Your task to perform on an android device: open app "Microsoft Excel" Image 0: 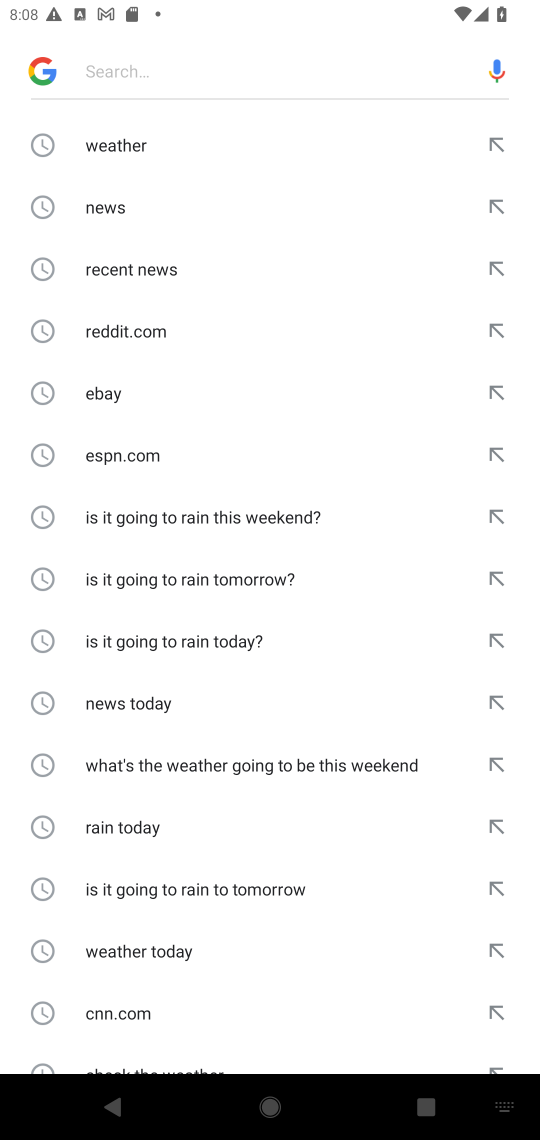
Step 0: press back button
Your task to perform on an android device: open app "Microsoft Excel" Image 1: 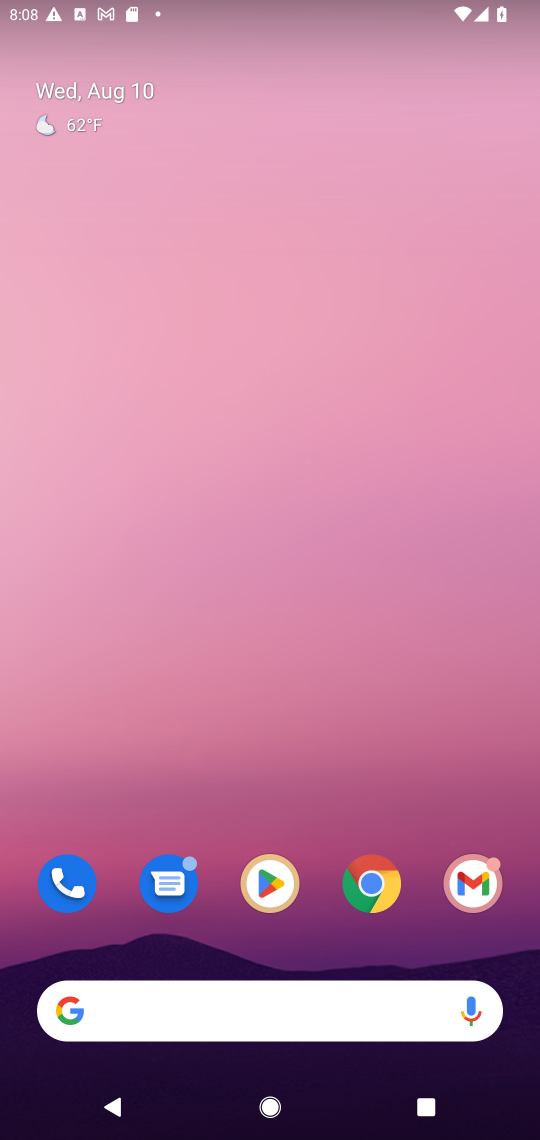
Step 1: click (261, 873)
Your task to perform on an android device: open app "Microsoft Excel" Image 2: 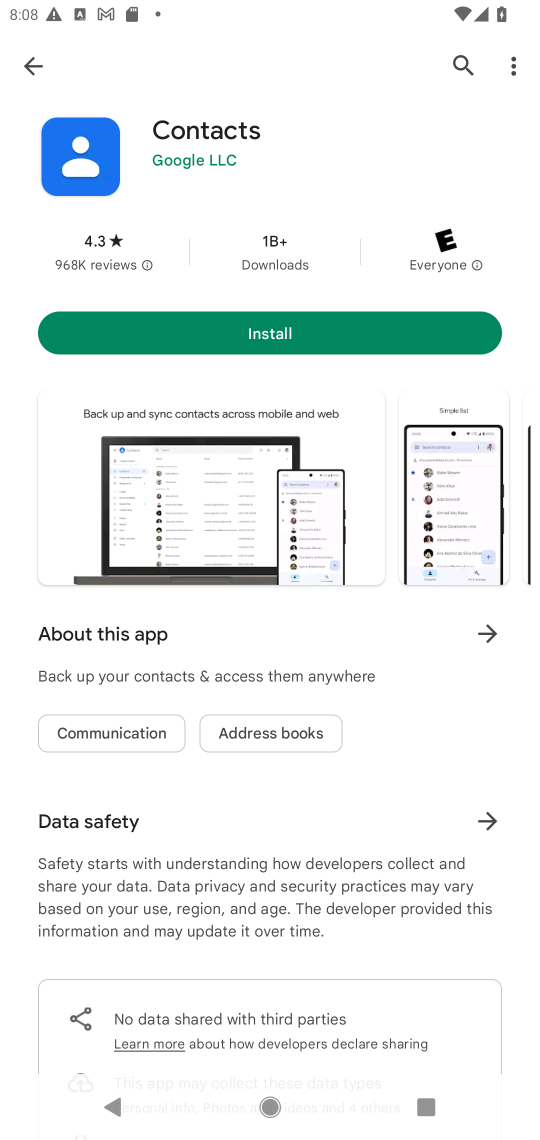
Step 2: click (456, 57)
Your task to perform on an android device: open app "Microsoft Excel" Image 3: 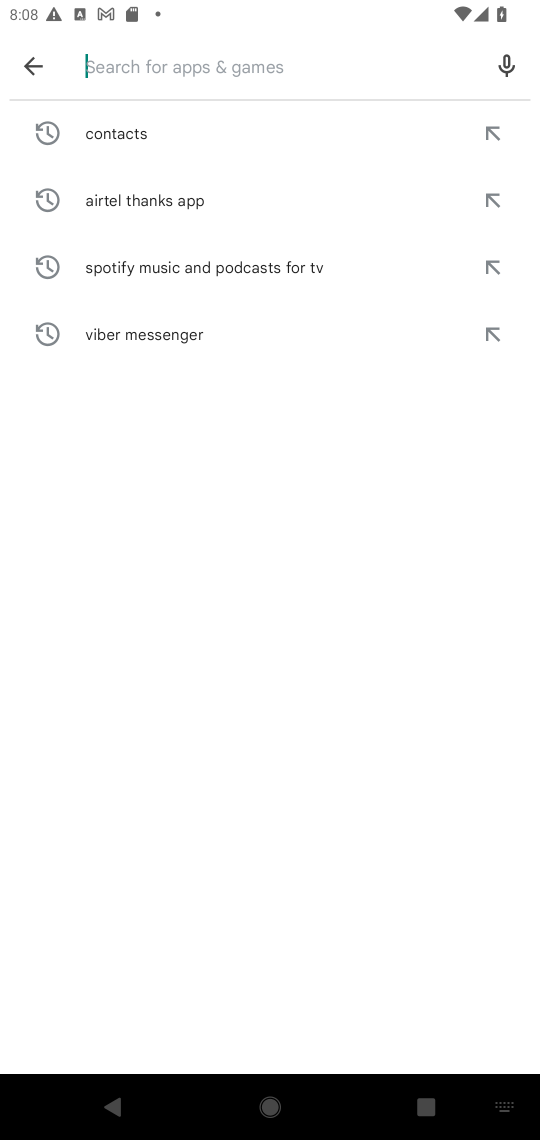
Step 3: type "Microsoft Excel"
Your task to perform on an android device: open app "Microsoft Excel" Image 4: 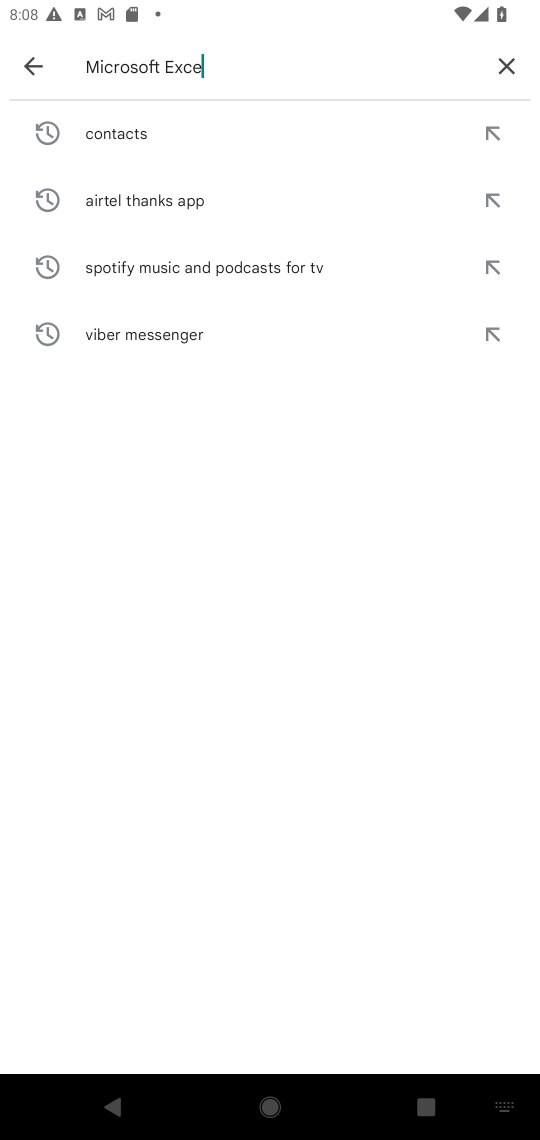
Step 4: type ""
Your task to perform on an android device: open app "Microsoft Excel" Image 5: 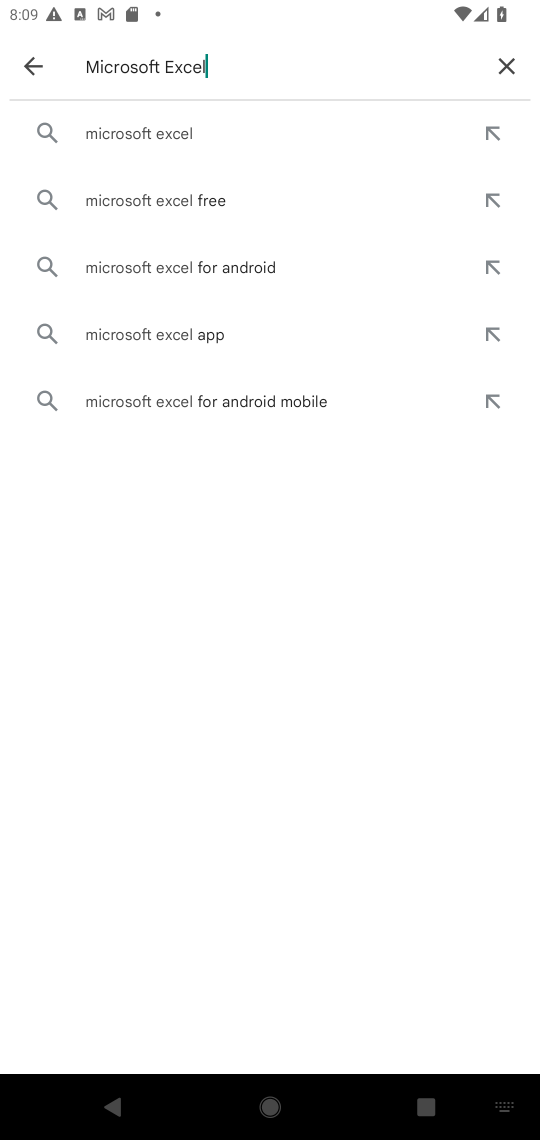
Step 5: click (254, 138)
Your task to perform on an android device: open app "Microsoft Excel" Image 6: 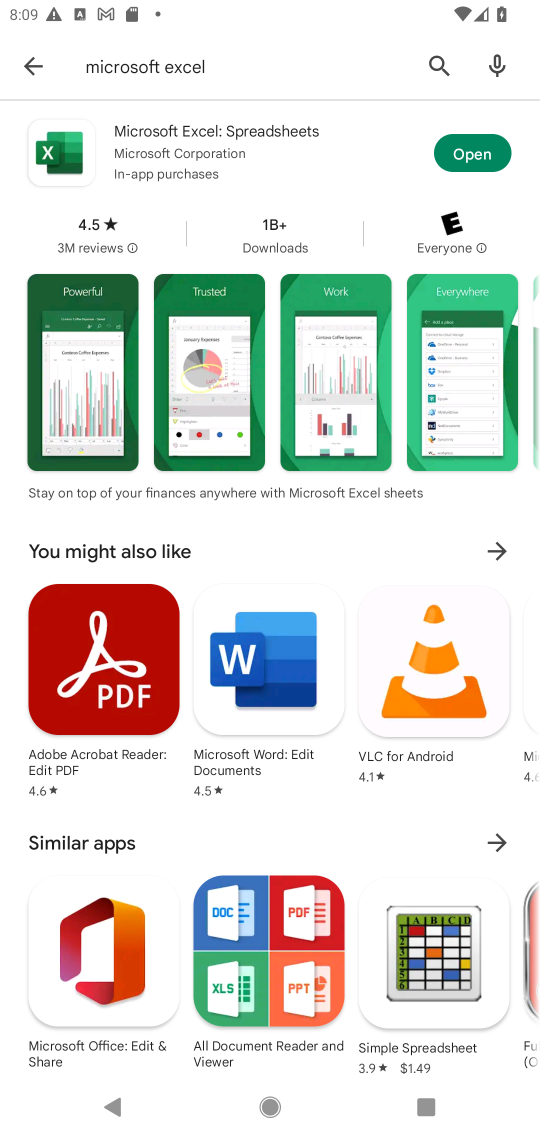
Step 6: click (455, 161)
Your task to perform on an android device: open app "Microsoft Excel" Image 7: 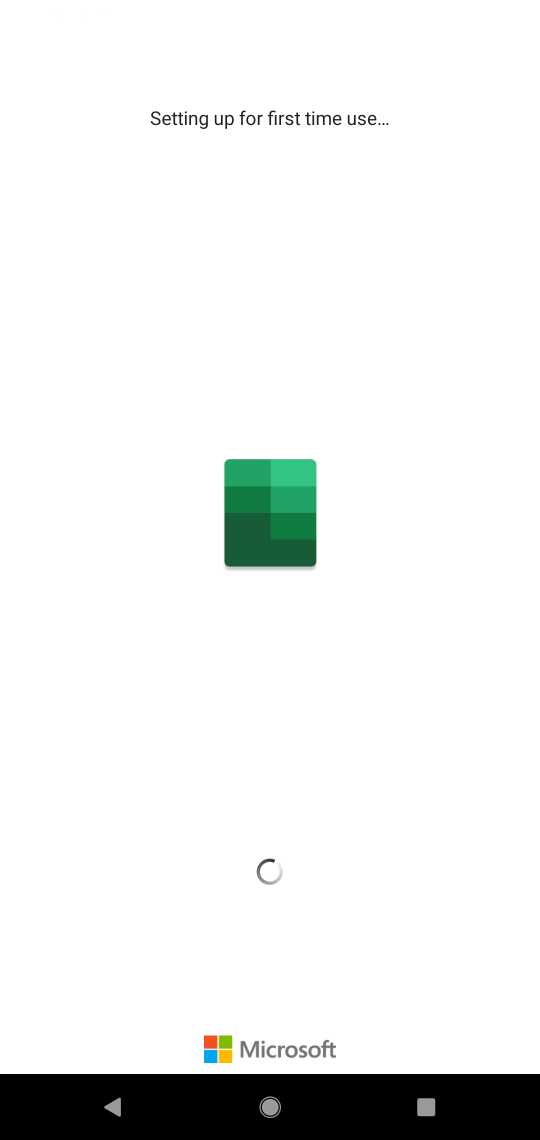
Step 7: task complete